Your task to perform on an android device: toggle pop-ups in chrome Image 0: 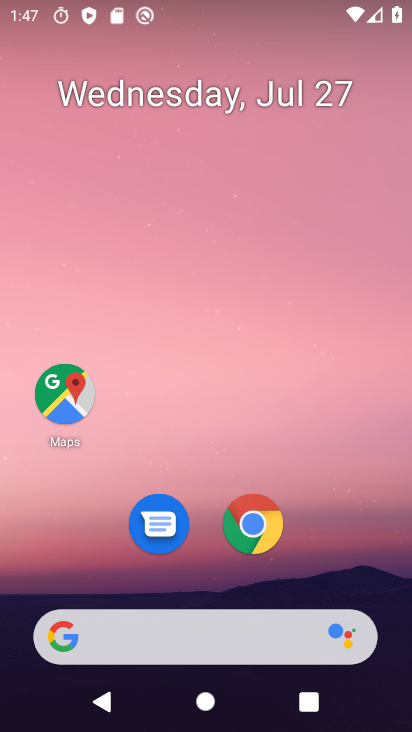
Step 0: click (262, 522)
Your task to perform on an android device: toggle pop-ups in chrome Image 1: 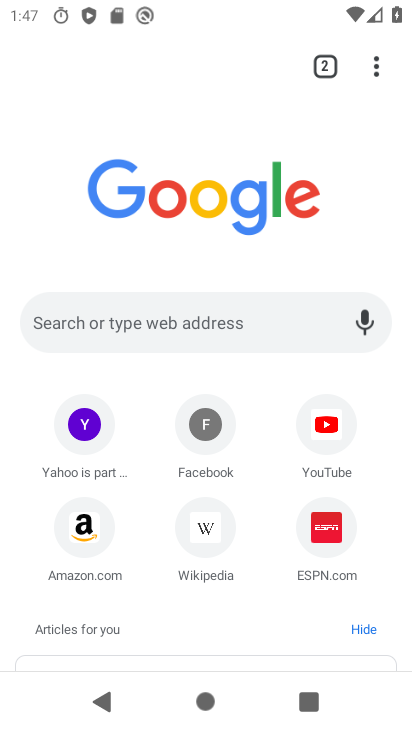
Step 1: click (377, 62)
Your task to perform on an android device: toggle pop-ups in chrome Image 2: 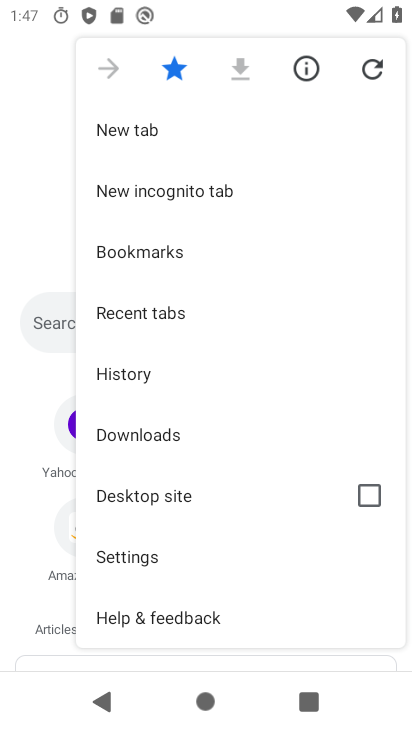
Step 2: click (145, 553)
Your task to perform on an android device: toggle pop-ups in chrome Image 3: 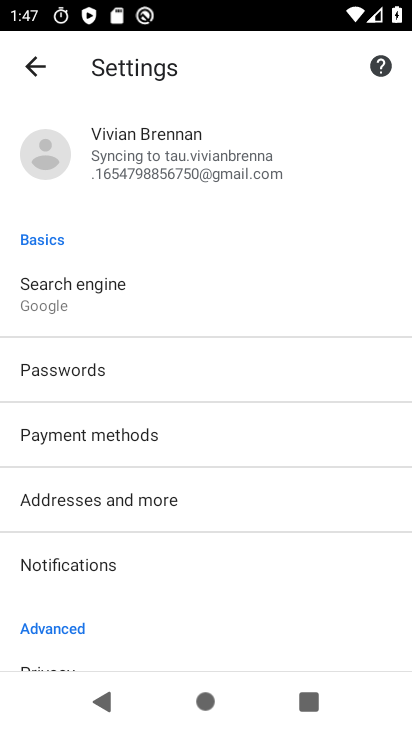
Step 3: drag from (226, 586) to (274, 215)
Your task to perform on an android device: toggle pop-ups in chrome Image 4: 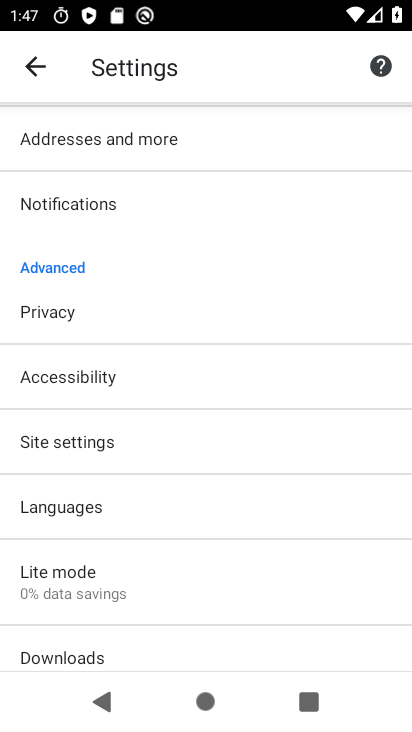
Step 4: click (84, 442)
Your task to perform on an android device: toggle pop-ups in chrome Image 5: 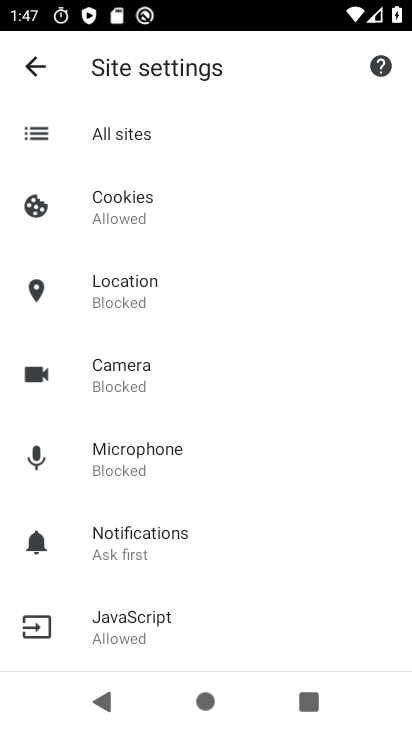
Step 5: drag from (240, 510) to (252, 336)
Your task to perform on an android device: toggle pop-ups in chrome Image 6: 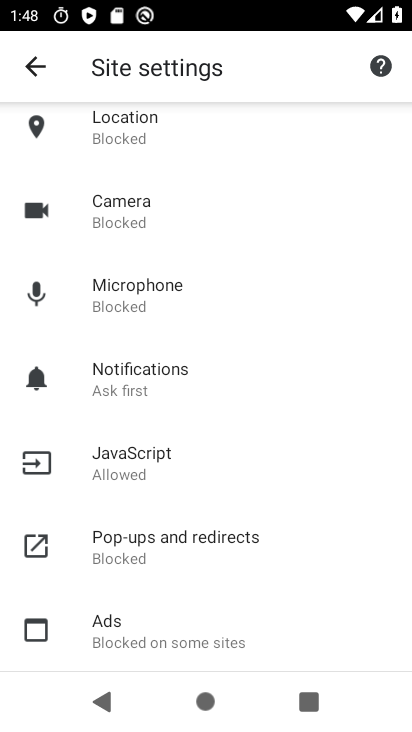
Step 6: click (188, 536)
Your task to perform on an android device: toggle pop-ups in chrome Image 7: 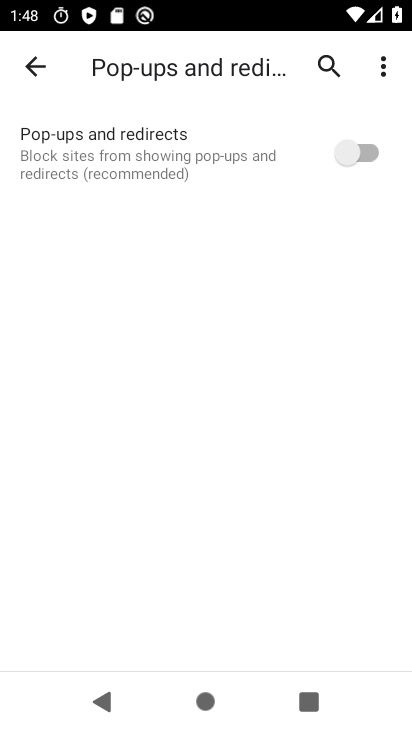
Step 7: click (355, 146)
Your task to perform on an android device: toggle pop-ups in chrome Image 8: 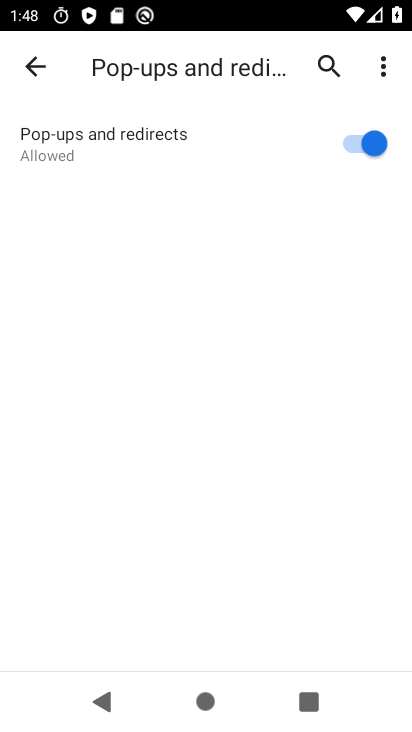
Step 8: task complete